Your task to perform on an android device: open app "Venmo" (install if not already installed), go to login, and select forgot password Image 0: 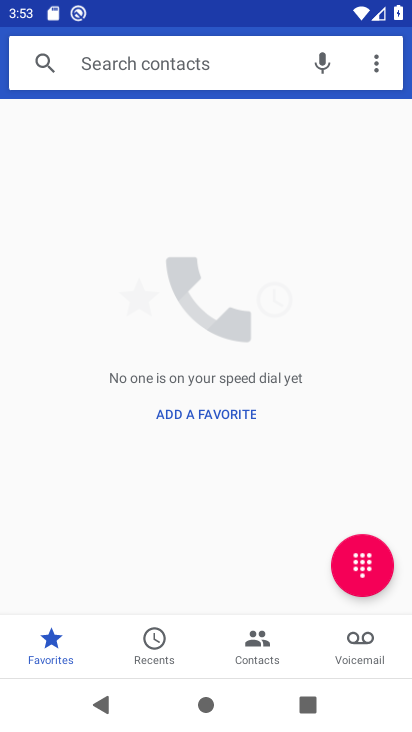
Step 0: press home button
Your task to perform on an android device: open app "Venmo" (install if not already installed), go to login, and select forgot password Image 1: 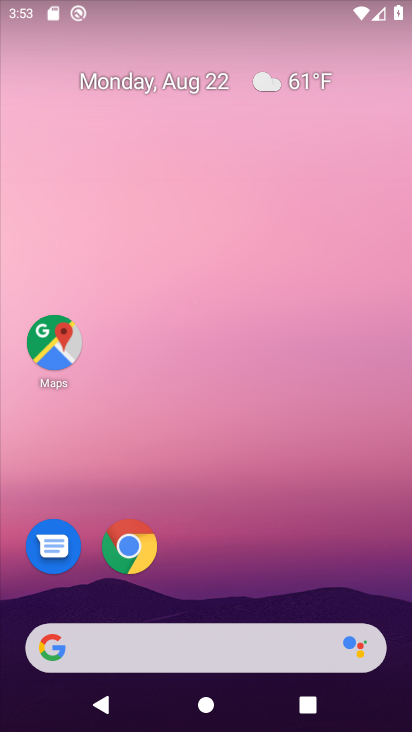
Step 1: drag from (390, 611) to (328, 80)
Your task to perform on an android device: open app "Venmo" (install if not already installed), go to login, and select forgot password Image 2: 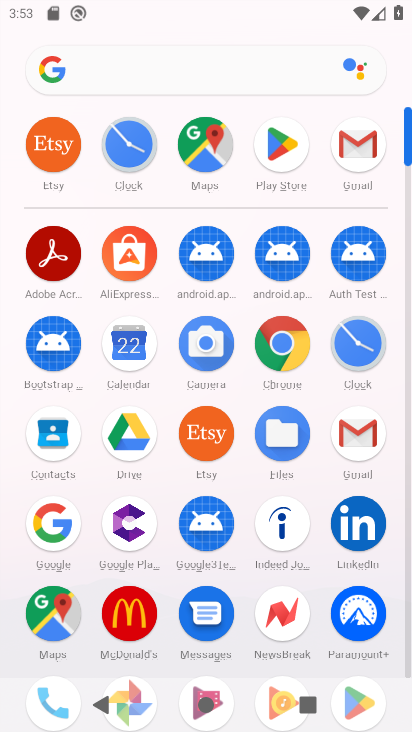
Step 2: drag from (321, 578) to (318, 365)
Your task to perform on an android device: open app "Venmo" (install if not already installed), go to login, and select forgot password Image 3: 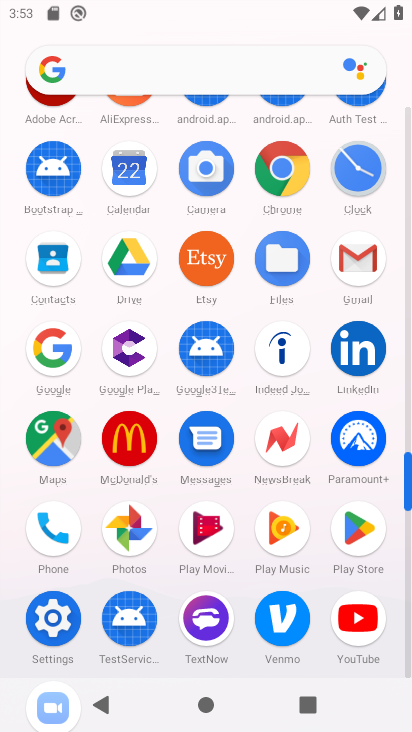
Step 3: click (361, 528)
Your task to perform on an android device: open app "Venmo" (install if not already installed), go to login, and select forgot password Image 4: 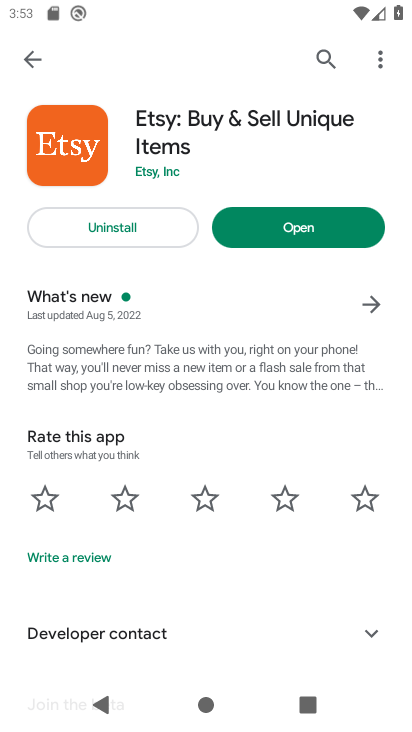
Step 4: click (320, 59)
Your task to perform on an android device: open app "Venmo" (install if not already installed), go to login, and select forgot password Image 5: 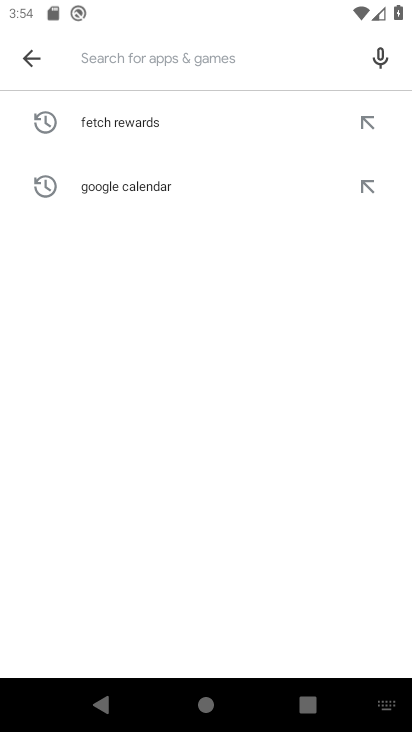
Step 5: type "Venmo"
Your task to perform on an android device: open app "Venmo" (install if not already installed), go to login, and select forgot password Image 6: 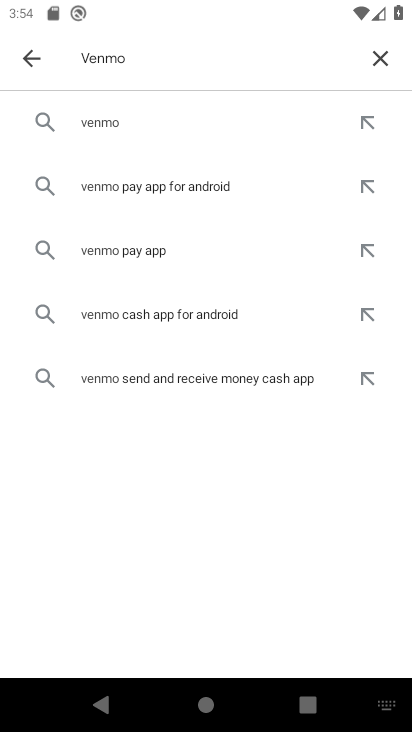
Step 6: click (98, 120)
Your task to perform on an android device: open app "Venmo" (install if not already installed), go to login, and select forgot password Image 7: 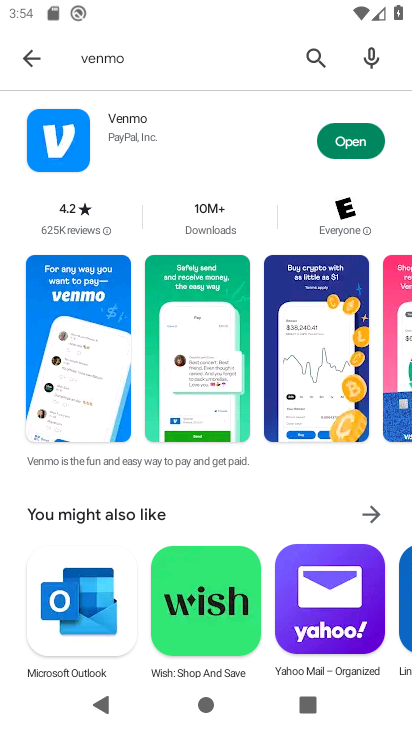
Step 7: click (350, 140)
Your task to perform on an android device: open app "Venmo" (install if not already installed), go to login, and select forgot password Image 8: 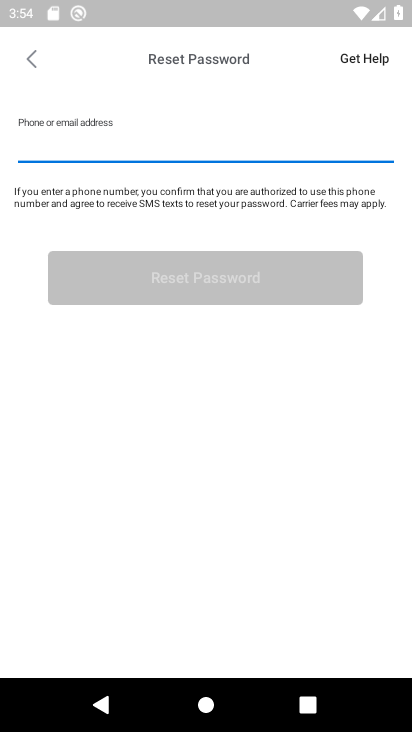
Step 8: press back button
Your task to perform on an android device: open app "Venmo" (install if not already installed), go to login, and select forgot password Image 9: 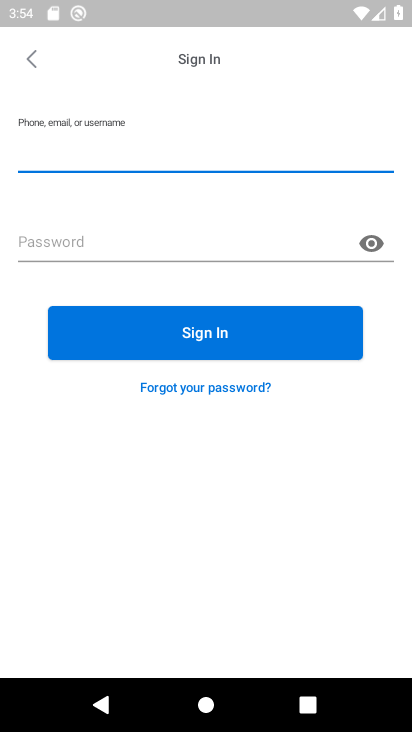
Step 9: click (212, 387)
Your task to perform on an android device: open app "Venmo" (install if not already installed), go to login, and select forgot password Image 10: 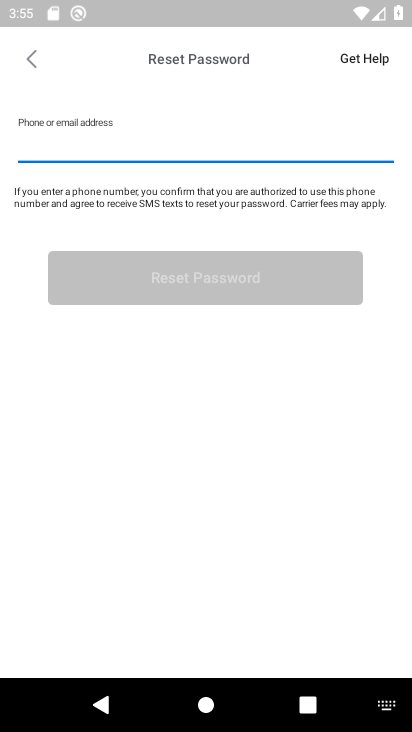
Step 10: task complete